Your task to perform on an android device: change notification settings in the gmail app Image 0: 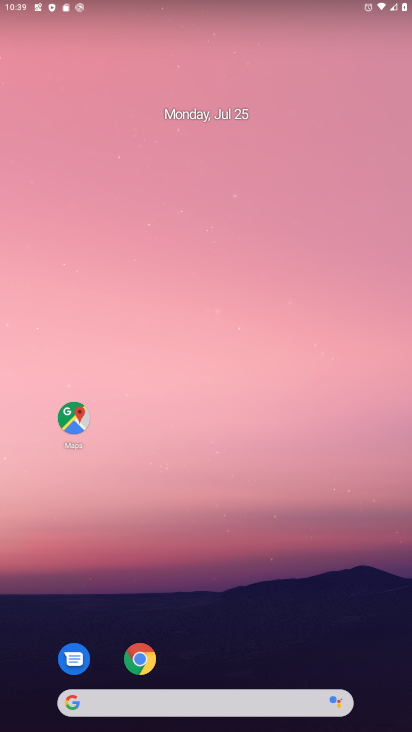
Step 0: drag from (246, 684) to (240, 238)
Your task to perform on an android device: change notification settings in the gmail app Image 1: 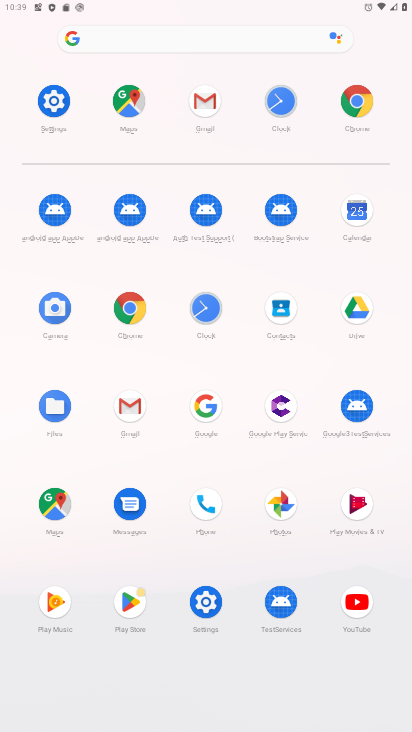
Step 1: click (124, 414)
Your task to perform on an android device: change notification settings in the gmail app Image 2: 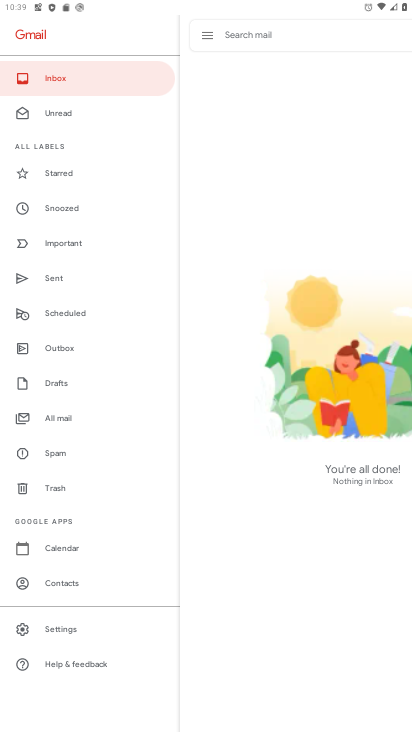
Step 2: click (41, 631)
Your task to perform on an android device: change notification settings in the gmail app Image 3: 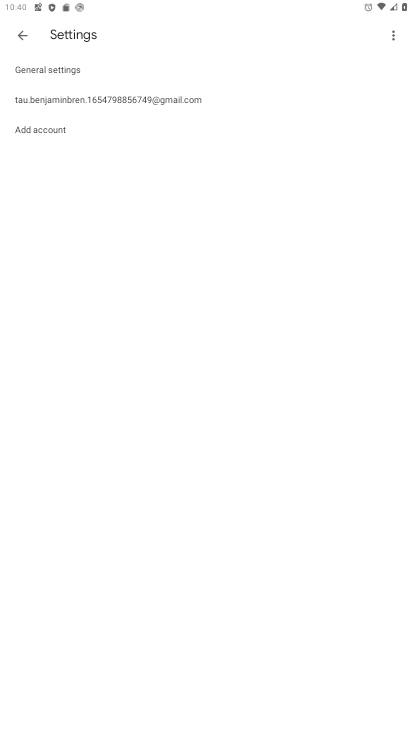
Step 3: click (43, 67)
Your task to perform on an android device: change notification settings in the gmail app Image 4: 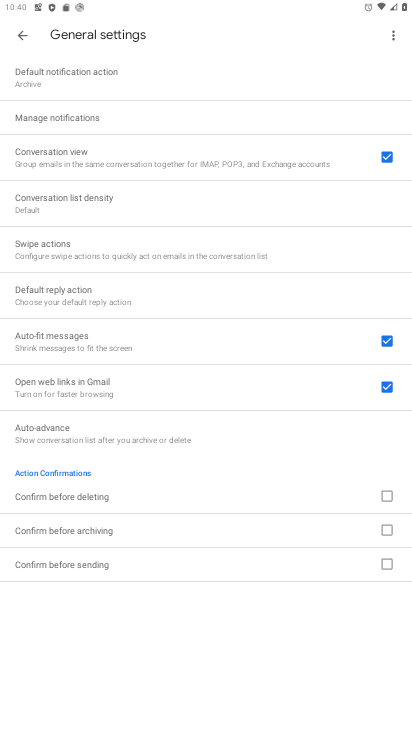
Step 4: click (73, 126)
Your task to perform on an android device: change notification settings in the gmail app Image 5: 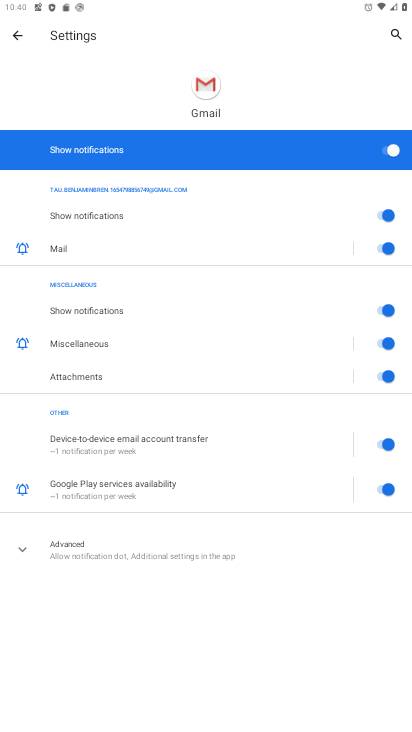
Step 5: click (394, 149)
Your task to perform on an android device: change notification settings in the gmail app Image 6: 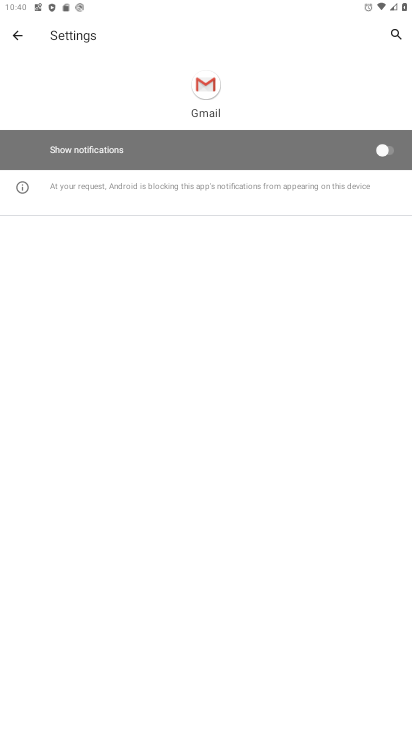
Step 6: task complete